Your task to perform on an android device: toggle priority inbox in the gmail app Image 0: 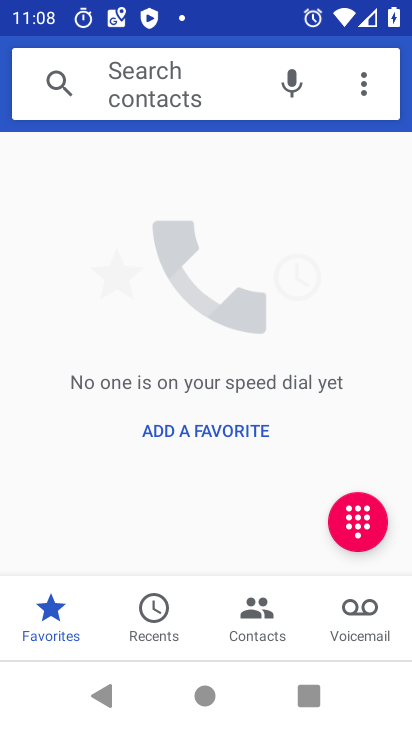
Step 0: press home button
Your task to perform on an android device: toggle priority inbox in the gmail app Image 1: 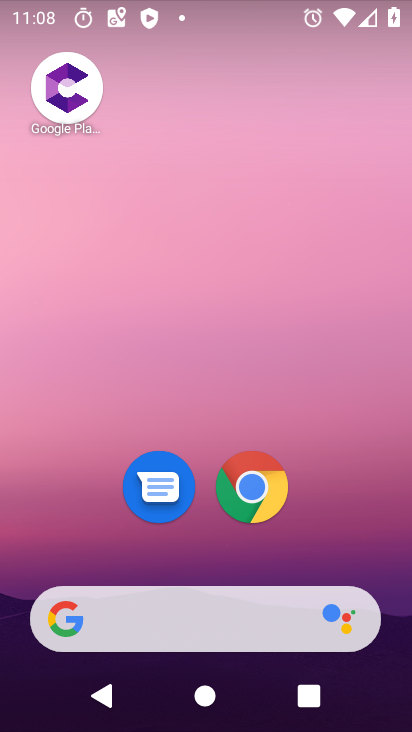
Step 1: drag from (238, 726) to (246, 123)
Your task to perform on an android device: toggle priority inbox in the gmail app Image 2: 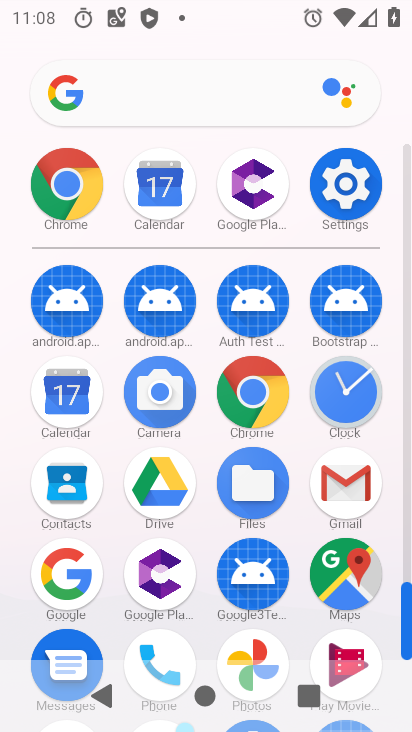
Step 2: click (343, 486)
Your task to perform on an android device: toggle priority inbox in the gmail app Image 3: 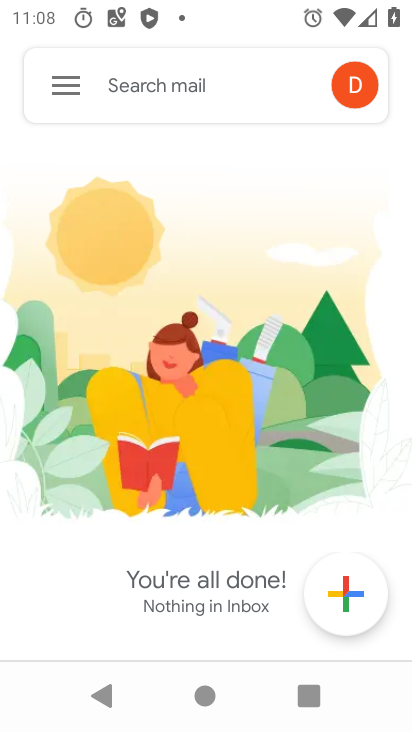
Step 3: click (60, 82)
Your task to perform on an android device: toggle priority inbox in the gmail app Image 4: 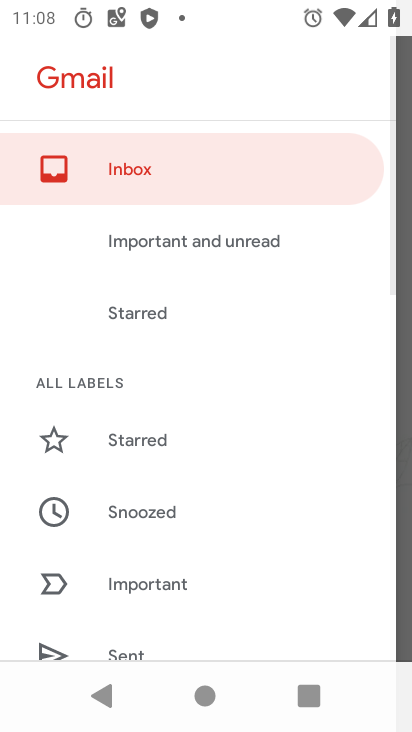
Step 4: drag from (166, 602) to (170, 246)
Your task to perform on an android device: toggle priority inbox in the gmail app Image 5: 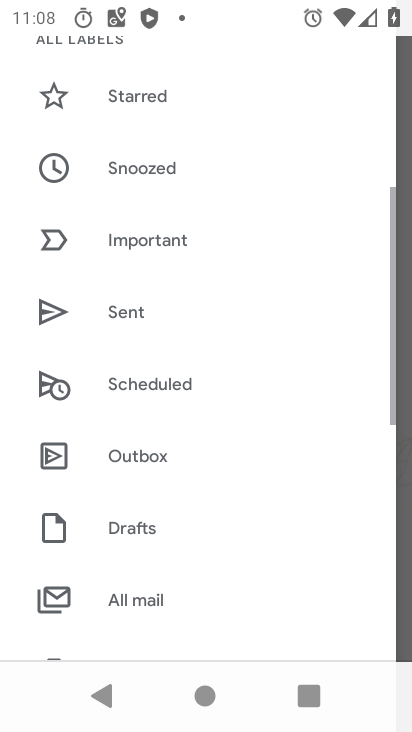
Step 5: drag from (180, 617) to (180, 211)
Your task to perform on an android device: toggle priority inbox in the gmail app Image 6: 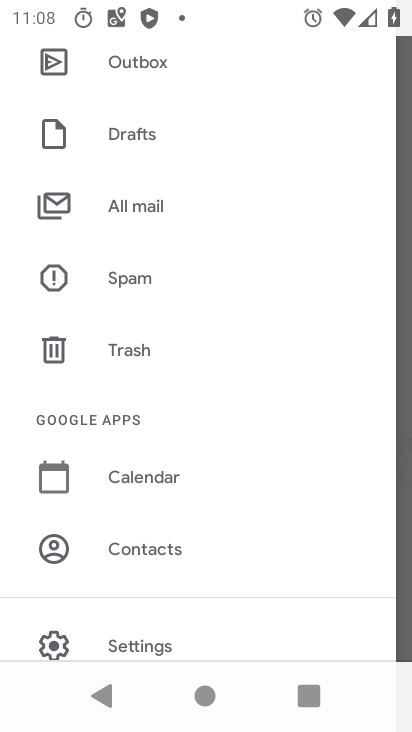
Step 6: click (147, 642)
Your task to perform on an android device: toggle priority inbox in the gmail app Image 7: 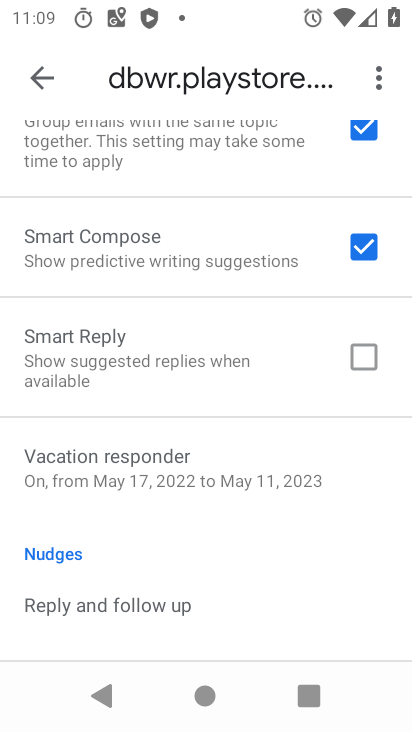
Step 7: drag from (157, 184) to (153, 638)
Your task to perform on an android device: toggle priority inbox in the gmail app Image 8: 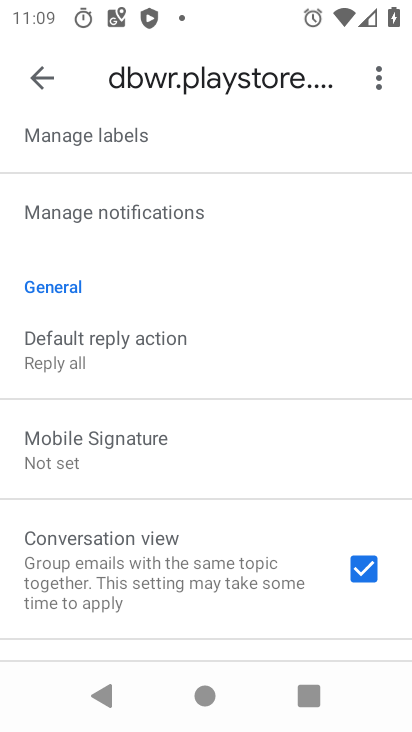
Step 8: drag from (172, 195) to (172, 559)
Your task to perform on an android device: toggle priority inbox in the gmail app Image 9: 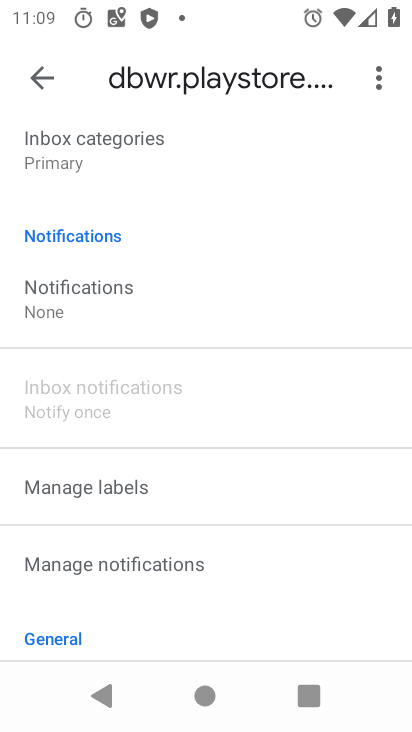
Step 9: drag from (166, 174) to (185, 584)
Your task to perform on an android device: toggle priority inbox in the gmail app Image 10: 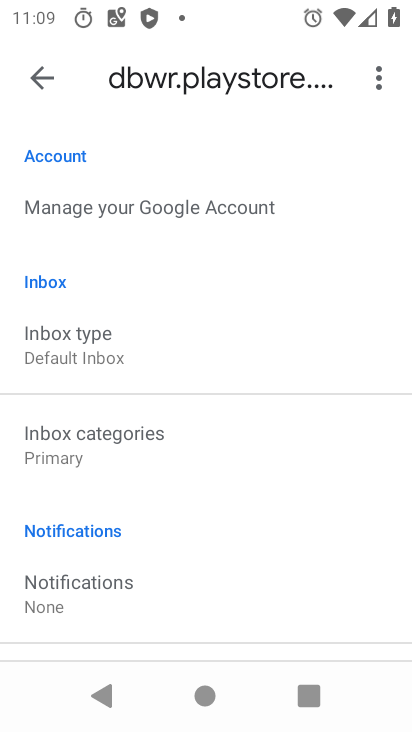
Step 10: click (70, 345)
Your task to perform on an android device: toggle priority inbox in the gmail app Image 11: 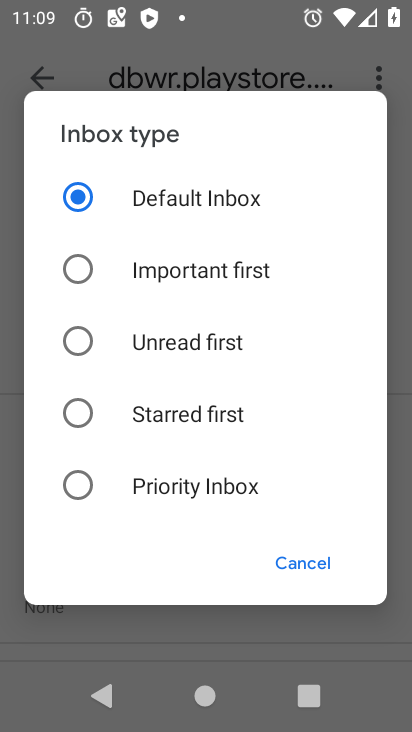
Step 11: click (80, 483)
Your task to perform on an android device: toggle priority inbox in the gmail app Image 12: 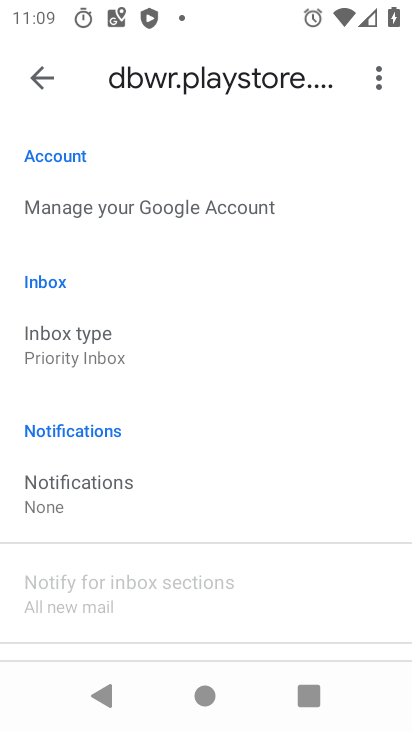
Step 12: task complete